Your task to perform on an android device: open a bookmark in the chrome app Image 0: 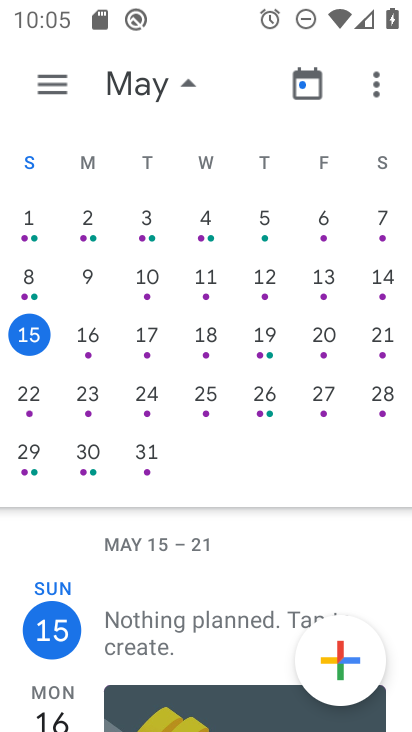
Step 0: press home button
Your task to perform on an android device: open a bookmark in the chrome app Image 1: 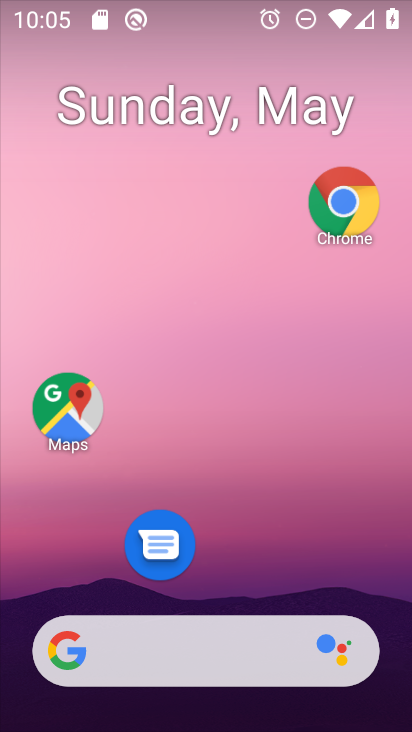
Step 1: click (356, 200)
Your task to perform on an android device: open a bookmark in the chrome app Image 2: 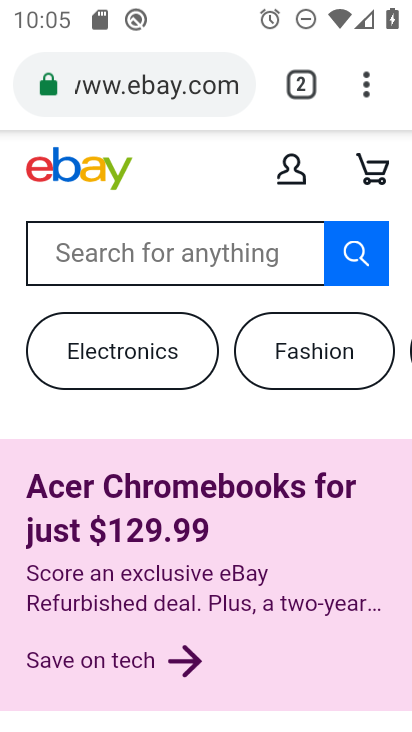
Step 2: click (370, 83)
Your task to perform on an android device: open a bookmark in the chrome app Image 3: 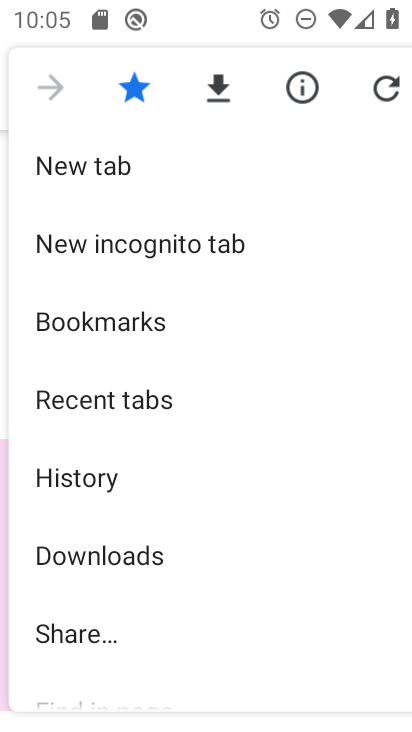
Step 3: click (127, 334)
Your task to perform on an android device: open a bookmark in the chrome app Image 4: 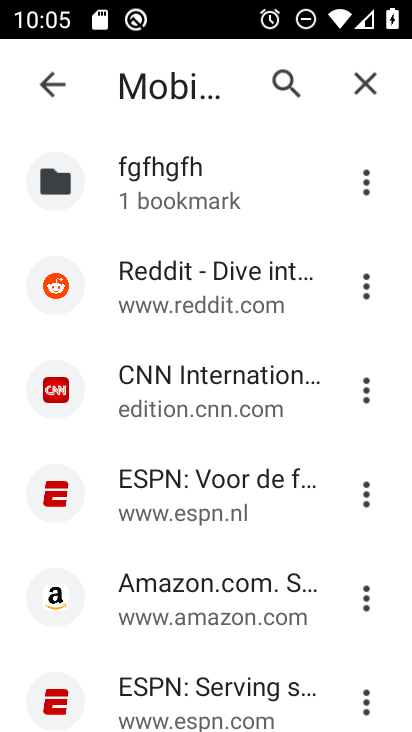
Step 4: click (145, 615)
Your task to perform on an android device: open a bookmark in the chrome app Image 5: 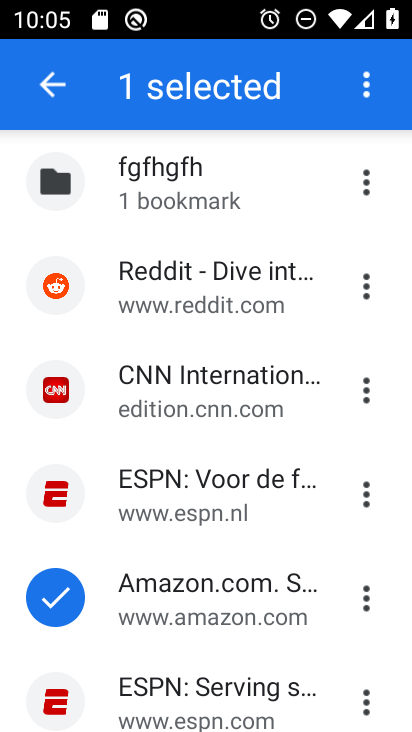
Step 5: click (146, 614)
Your task to perform on an android device: open a bookmark in the chrome app Image 6: 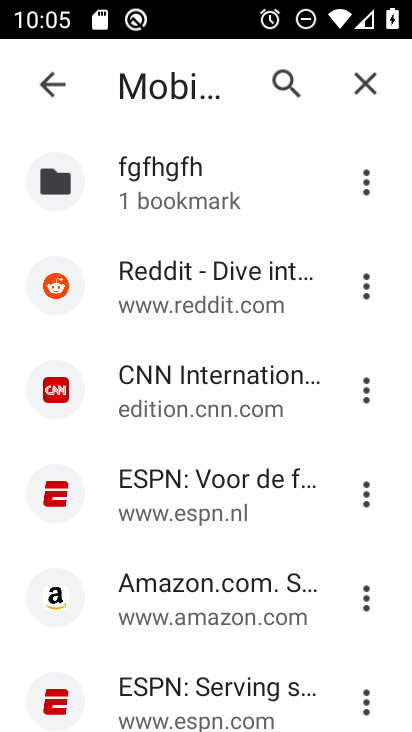
Step 6: click (240, 595)
Your task to perform on an android device: open a bookmark in the chrome app Image 7: 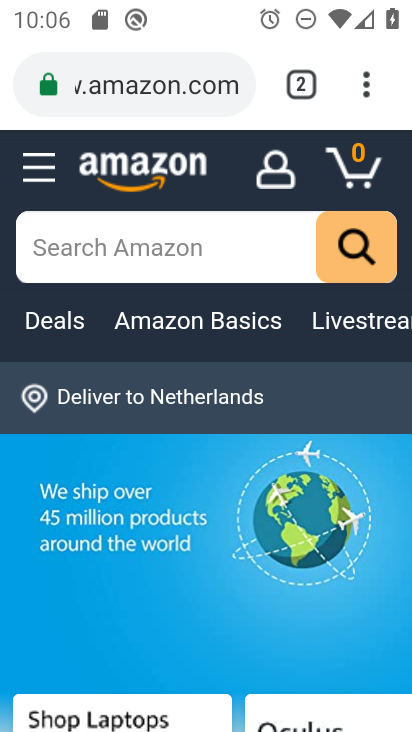
Step 7: task complete